Your task to perform on an android device: check battery use Image 0: 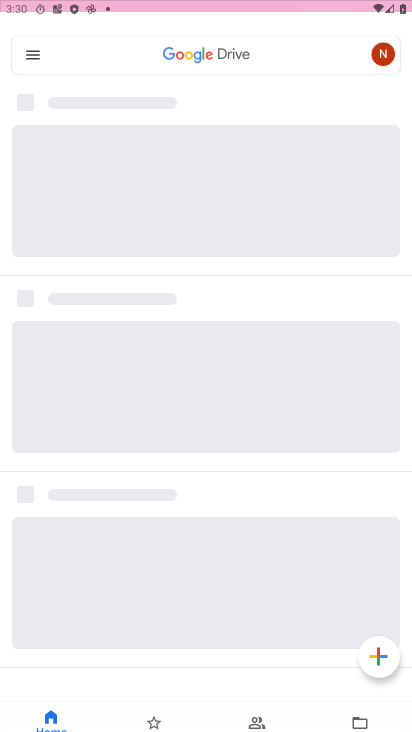
Step 0: drag from (266, 712) to (190, 165)
Your task to perform on an android device: check battery use Image 1: 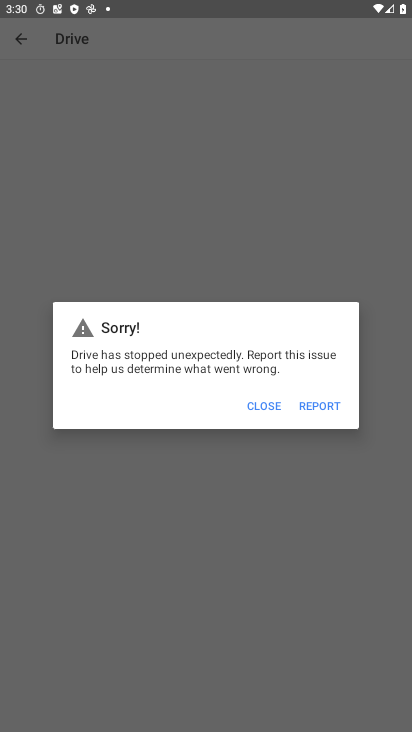
Step 1: press home button
Your task to perform on an android device: check battery use Image 2: 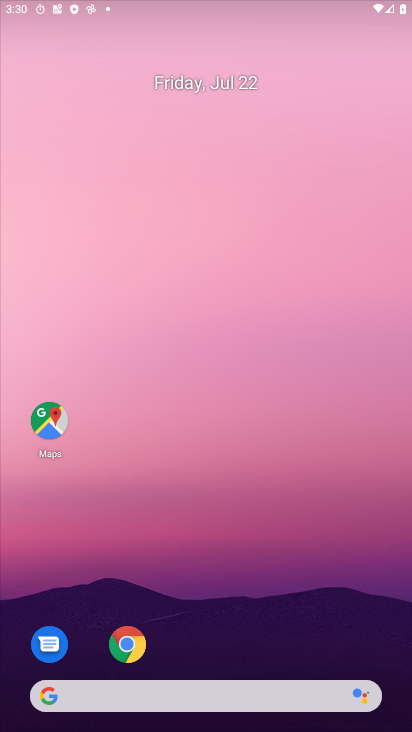
Step 2: drag from (244, 627) to (183, 20)
Your task to perform on an android device: check battery use Image 3: 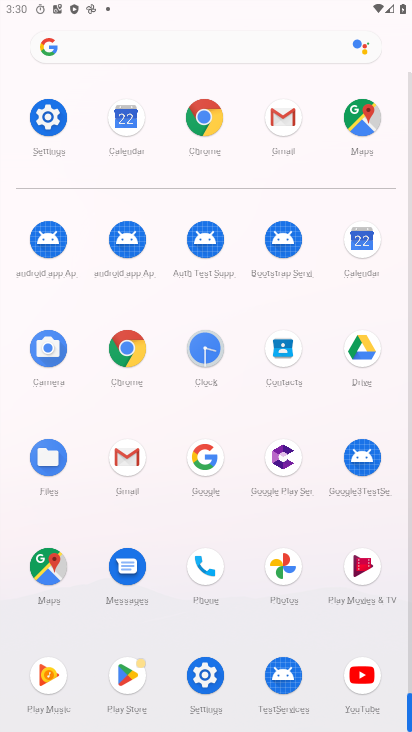
Step 3: click (47, 124)
Your task to perform on an android device: check battery use Image 4: 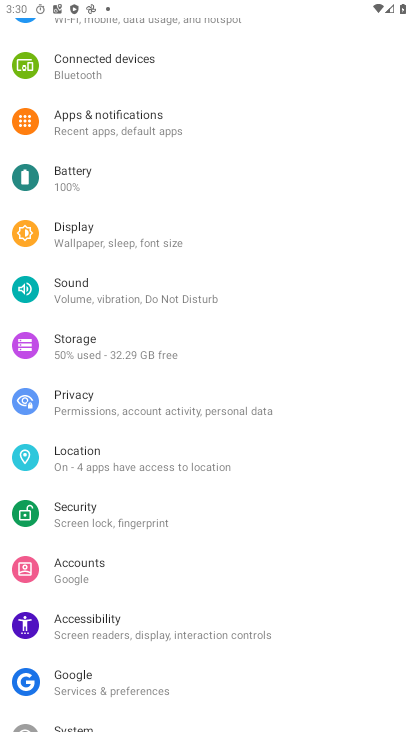
Step 4: click (161, 181)
Your task to perform on an android device: check battery use Image 5: 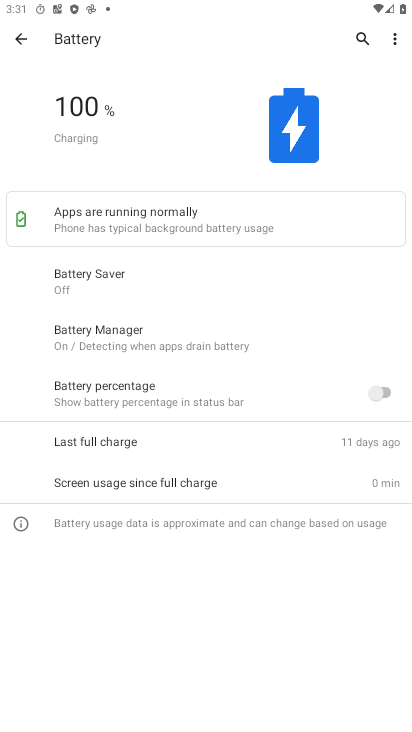
Step 5: task complete